Your task to perform on an android device: check out phone information Image 0: 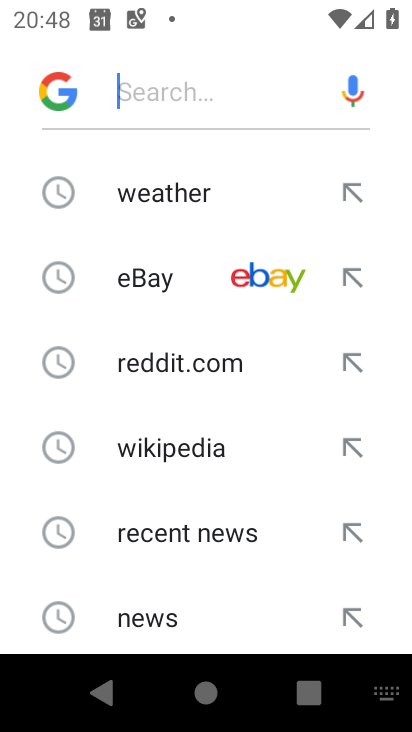
Step 0: press home button
Your task to perform on an android device: check out phone information Image 1: 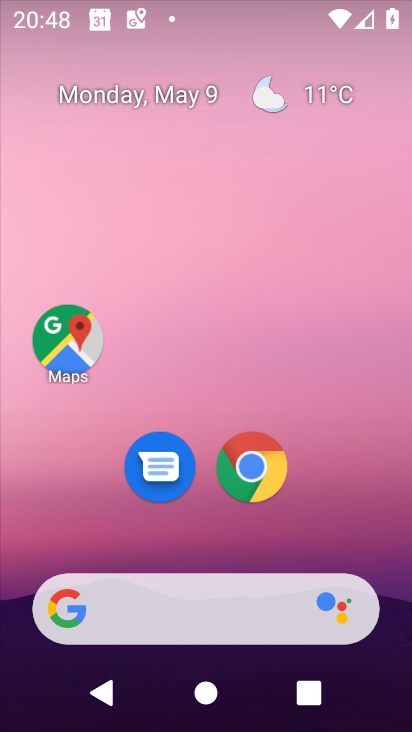
Step 1: drag from (305, 450) to (313, 271)
Your task to perform on an android device: check out phone information Image 2: 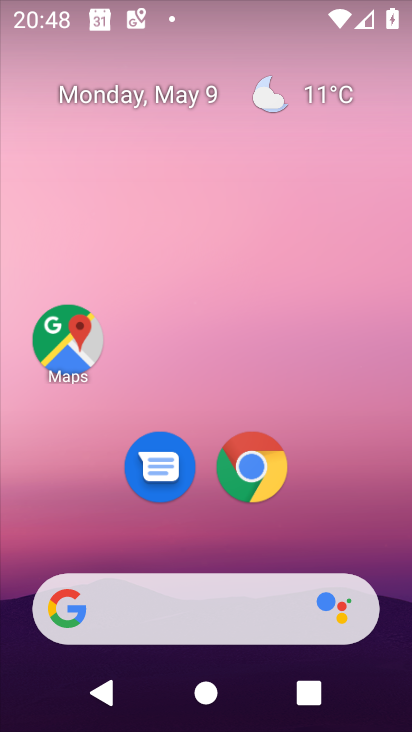
Step 2: drag from (254, 500) to (305, 145)
Your task to perform on an android device: check out phone information Image 3: 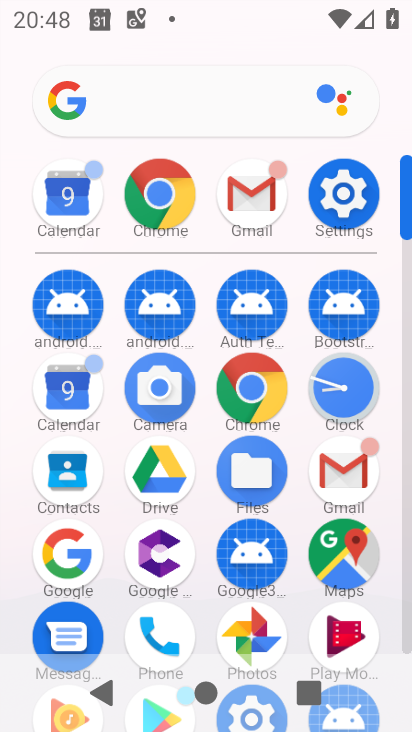
Step 3: click (361, 187)
Your task to perform on an android device: check out phone information Image 4: 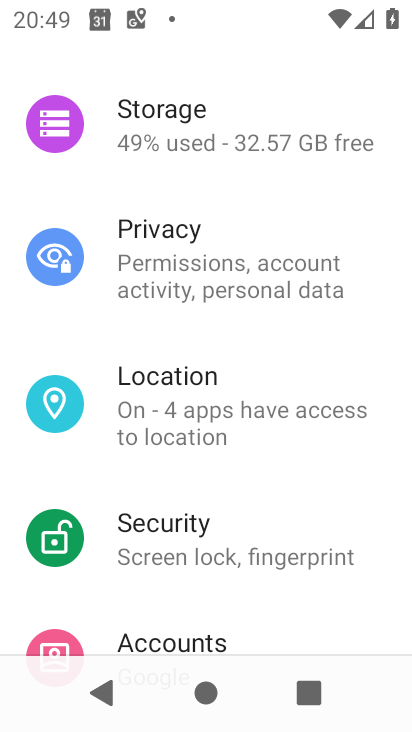
Step 4: drag from (207, 584) to (270, 110)
Your task to perform on an android device: check out phone information Image 5: 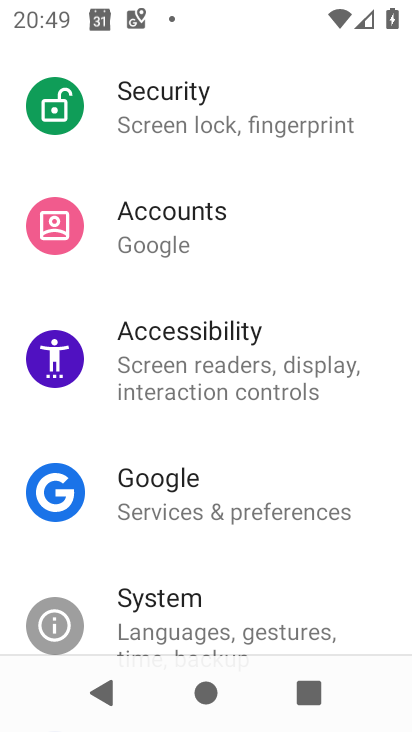
Step 5: drag from (151, 600) to (238, 91)
Your task to perform on an android device: check out phone information Image 6: 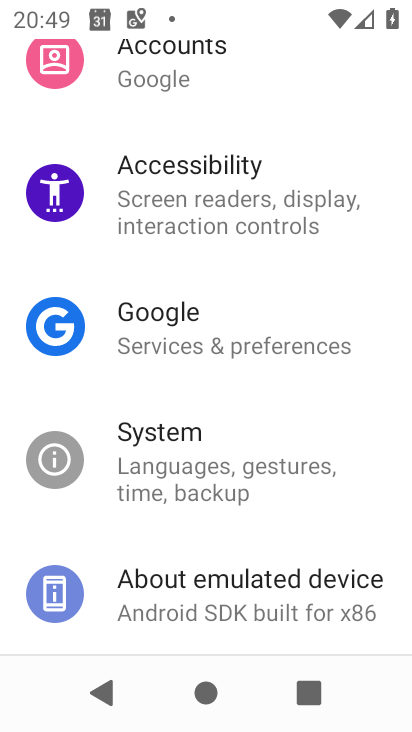
Step 6: click (206, 595)
Your task to perform on an android device: check out phone information Image 7: 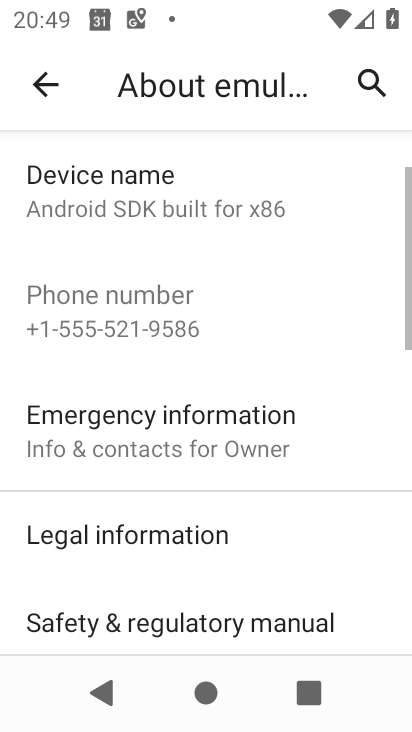
Step 7: task complete